Your task to perform on an android device: Search for "usb-c to usb-b" on newegg.com, select the first entry, and add it to the cart. Image 0: 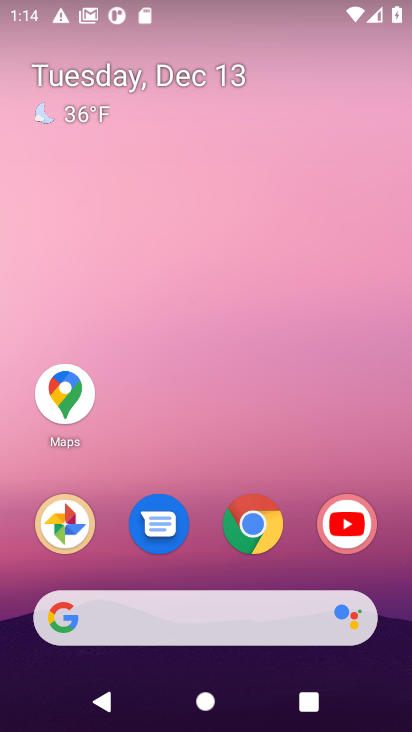
Step 0: click (254, 521)
Your task to perform on an android device: Search for "usb-c to usb-b" on newegg.com, select the first entry, and add it to the cart. Image 1: 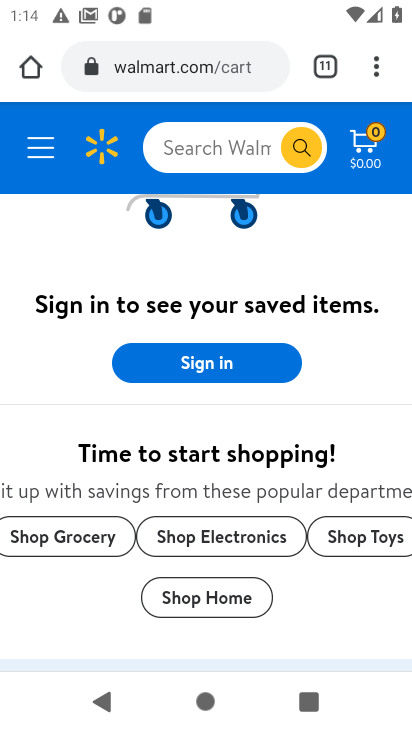
Step 1: click (137, 68)
Your task to perform on an android device: Search for "usb-c to usb-b" on newegg.com, select the first entry, and add it to the cart. Image 2: 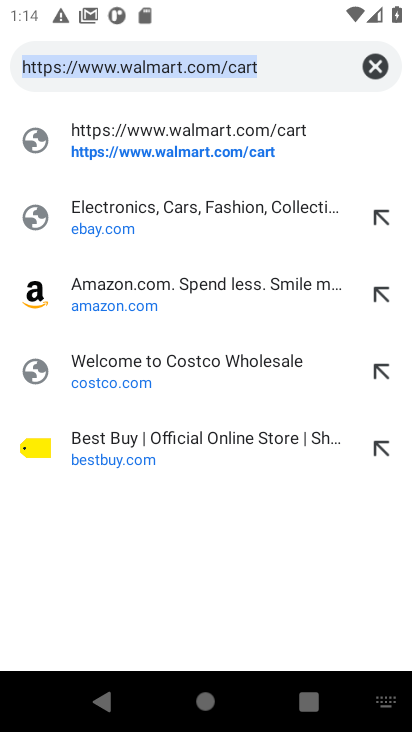
Step 2: type "newegg.com"
Your task to perform on an android device: Search for "usb-c to usb-b" on newegg.com, select the first entry, and add it to the cart. Image 3: 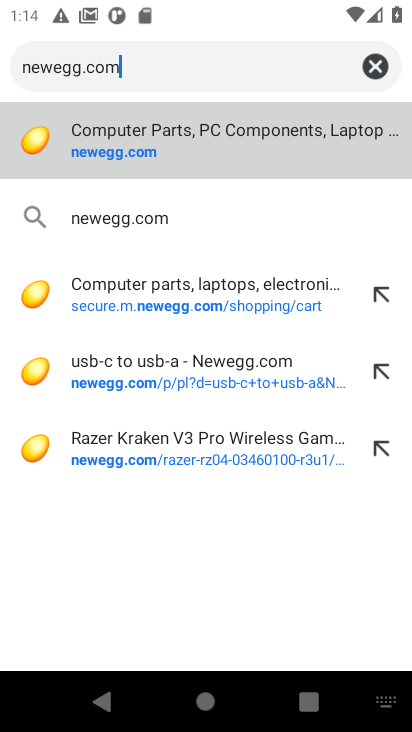
Step 3: click (120, 156)
Your task to perform on an android device: Search for "usb-c to usb-b" on newegg.com, select the first entry, and add it to the cart. Image 4: 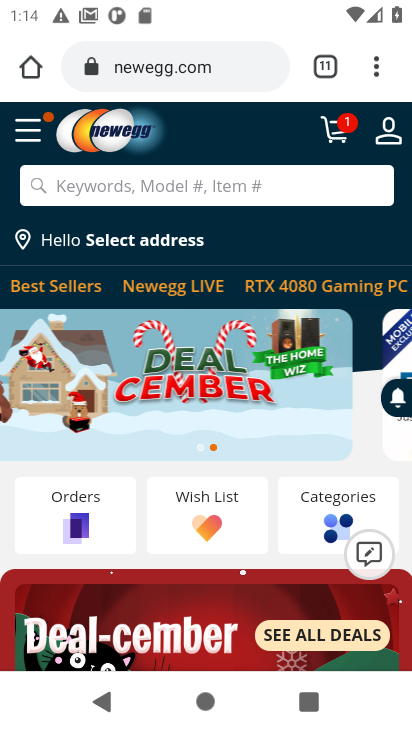
Step 4: click (74, 191)
Your task to perform on an android device: Search for "usb-c to usb-b" on newegg.com, select the first entry, and add it to the cart. Image 5: 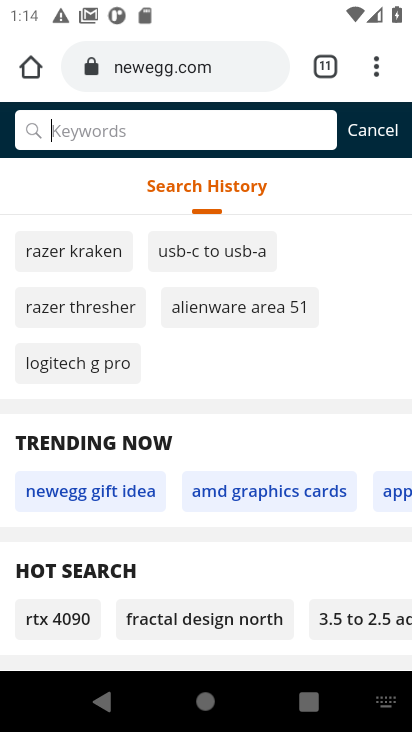
Step 5: type "usb-c to usb-b"
Your task to perform on an android device: Search for "usb-c to usb-b" on newegg.com, select the first entry, and add it to the cart. Image 6: 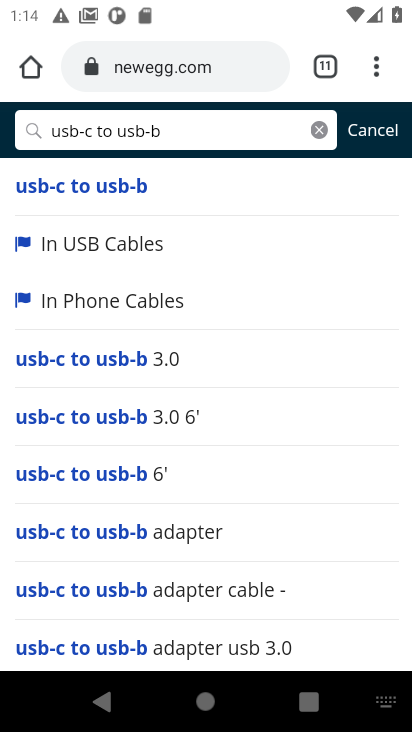
Step 6: click (110, 190)
Your task to perform on an android device: Search for "usb-c to usb-b" on newegg.com, select the first entry, and add it to the cart. Image 7: 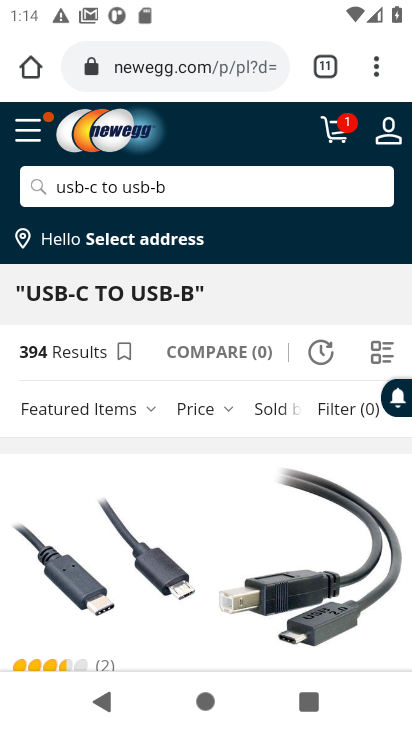
Step 7: drag from (127, 528) to (114, 292)
Your task to perform on an android device: Search for "usb-c to usb-b" on newegg.com, select the first entry, and add it to the cart. Image 8: 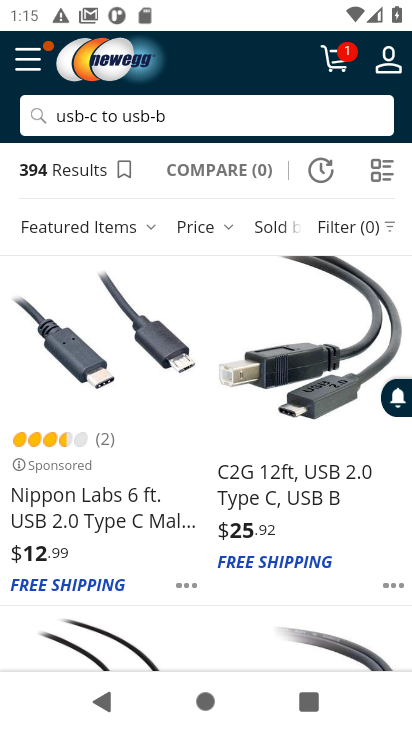
Step 8: click (68, 500)
Your task to perform on an android device: Search for "usb-c to usb-b" on newegg.com, select the first entry, and add it to the cart. Image 9: 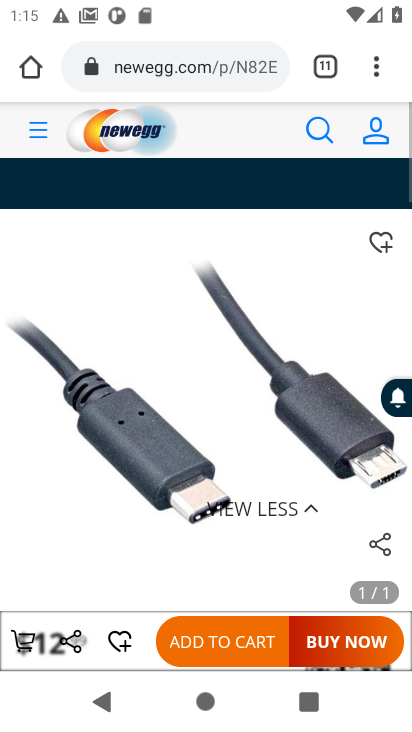
Step 9: drag from (181, 514) to (134, 135)
Your task to perform on an android device: Search for "usb-c to usb-b" on newegg.com, select the first entry, and add it to the cart. Image 10: 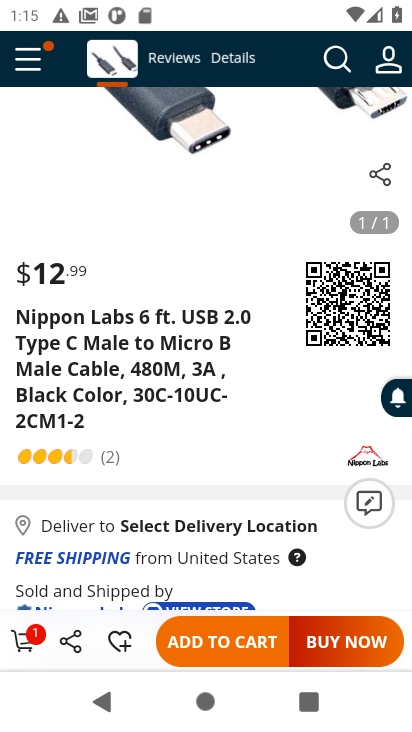
Step 10: click (222, 639)
Your task to perform on an android device: Search for "usb-c to usb-b" on newegg.com, select the first entry, and add it to the cart. Image 11: 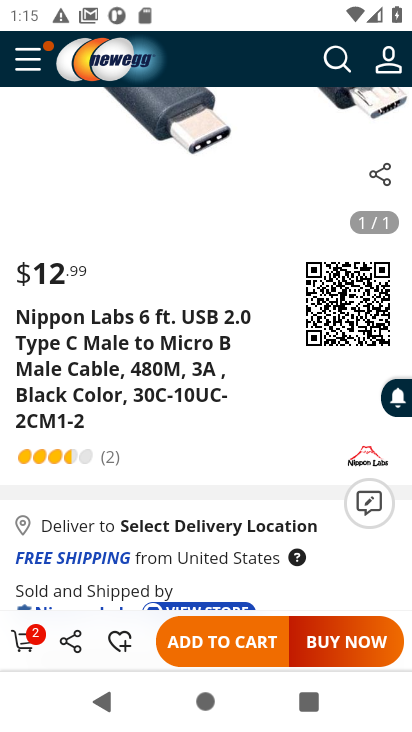
Step 11: click (34, 632)
Your task to perform on an android device: Search for "usb-c to usb-b" on newegg.com, select the first entry, and add it to the cart. Image 12: 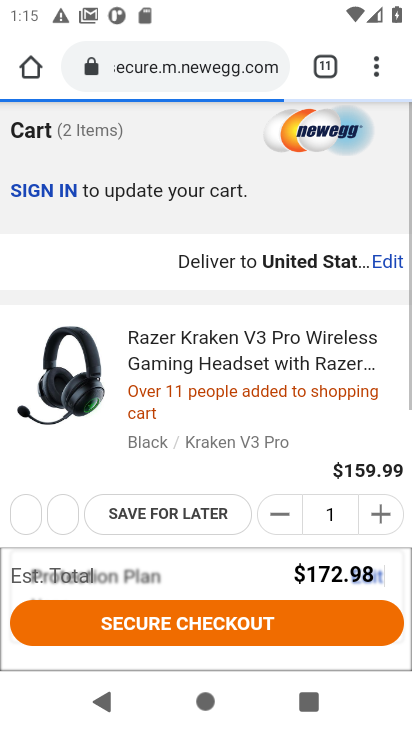
Step 12: task complete